Your task to perform on an android device: Open Maps and search for coffee Image 0: 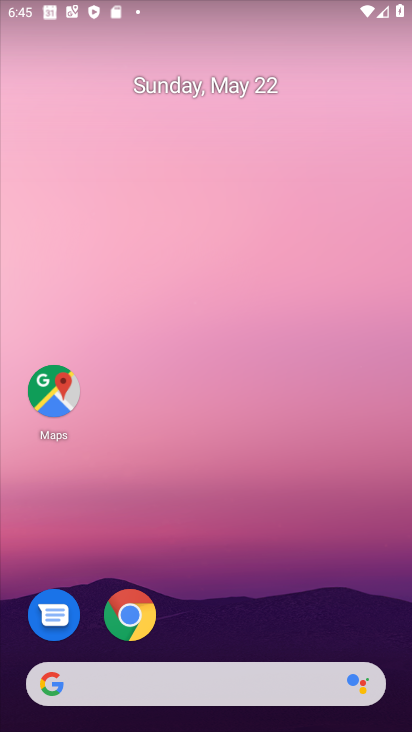
Step 0: click (43, 397)
Your task to perform on an android device: Open Maps and search for coffee Image 1: 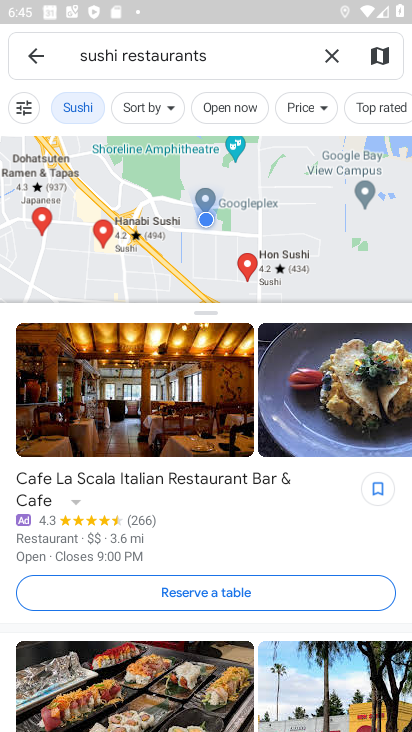
Step 1: click (324, 55)
Your task to perform on an android device: Open Maps and search for coffee Image 2: 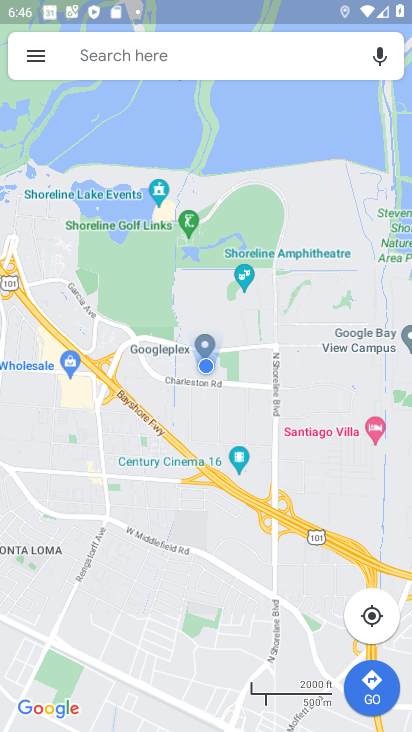
Step 2: click (181, 45)
Your task to perform on an android device: Open Maps and search for coffee Image 3: 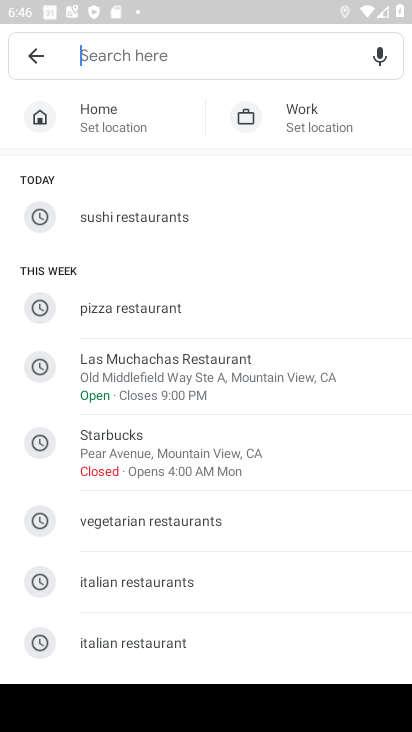
Step 3: type "coffee"
Your task to perform on an android device: Open Maps and search for coffee Image 4: 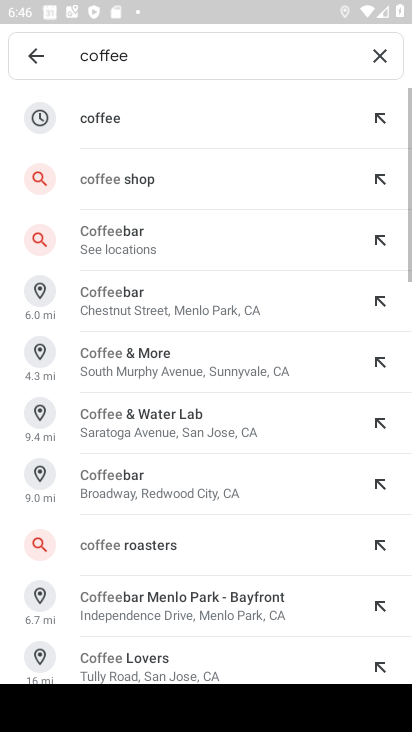
Step 4: click (119, 113)
Your task to perform on an android device: Open Maps and search for coffee Image 5: 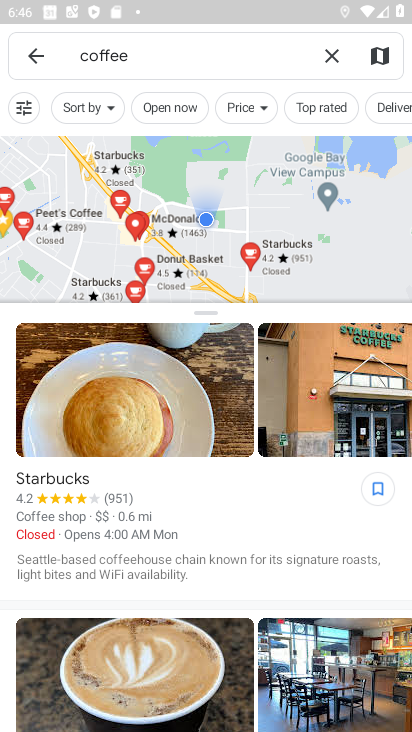
Step 5: task complete